Your task to perform on an android device: Go to location settings Image 0: 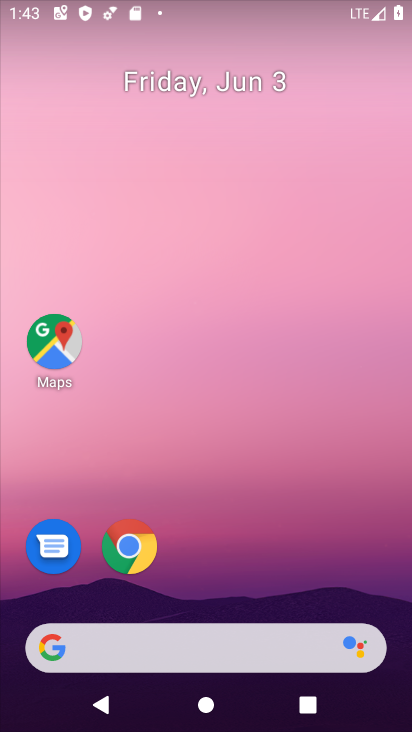
Step 0: drag from (231, 613) to (152, 3)
Your task to perform on an android device: Go to location settings Image 1: 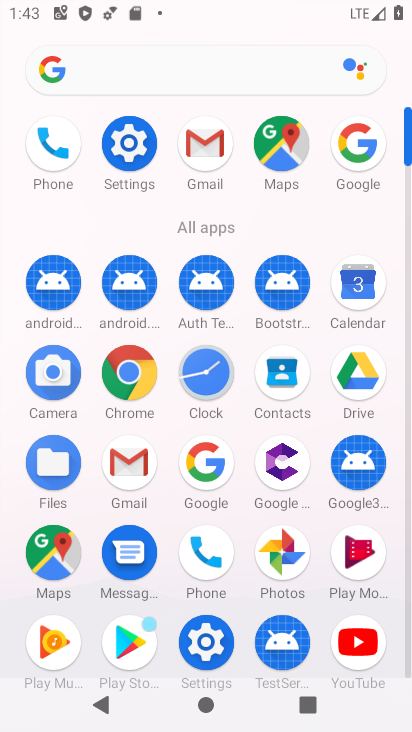
Step 1: click (124, 159)
Your task to perform on an android device: Go to location settings Image 2: 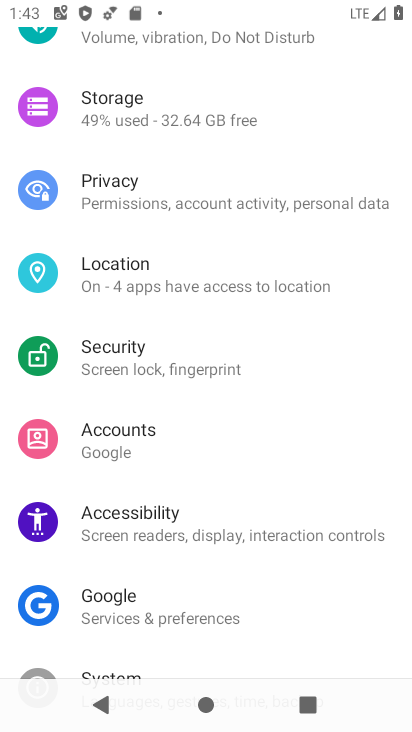
Step 2: click (115, 281)
Your task to perform on an android device: Go to location settings Image 3: 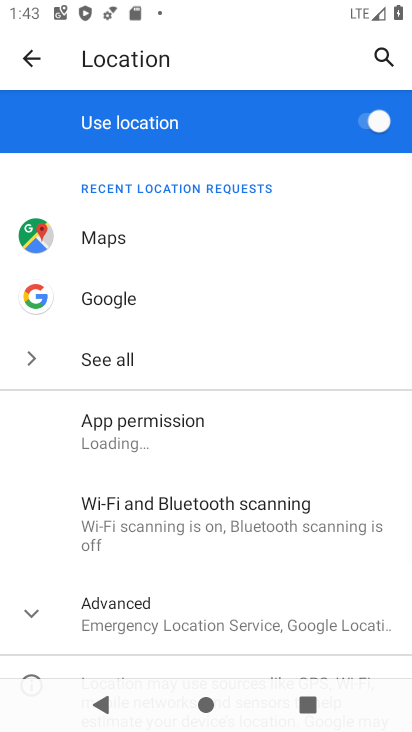
Step 3: click (158, 614)
Your task to perform on an android device: Go to location settings Image 4: 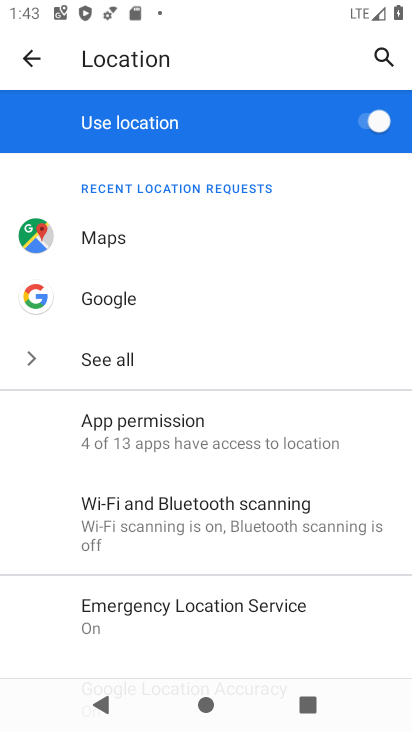
Step 4: task complete